Your task to perform on an android device: Open display settings Image 0: 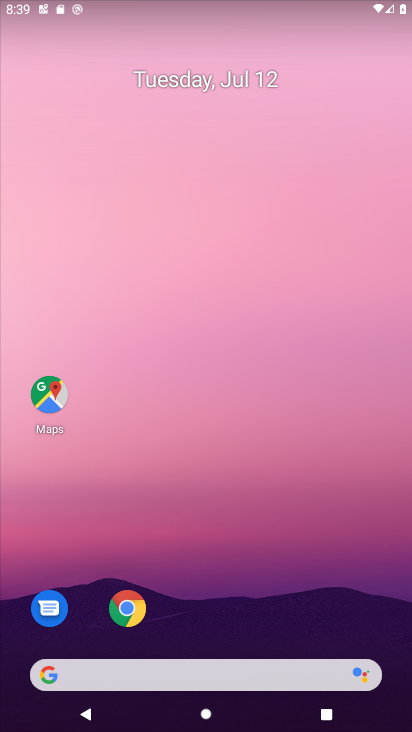
Step 0: drag from (228, 669) to (346, 53)
Your task to perform on an android device: Open display settings Image 1: 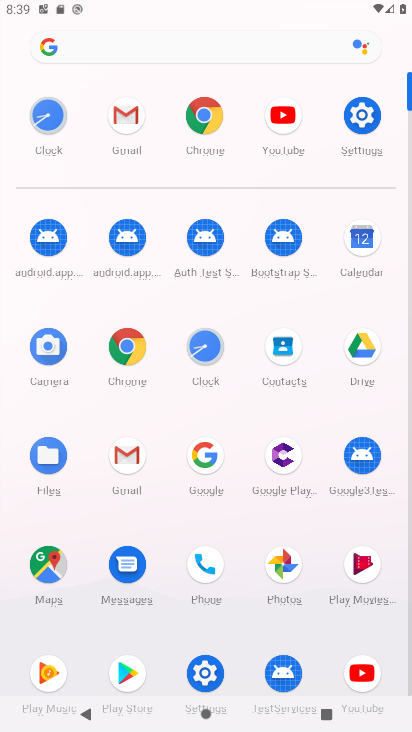
Step 1: click (355, 108)
Your task to perform on an android device: Open display settings Image 2: 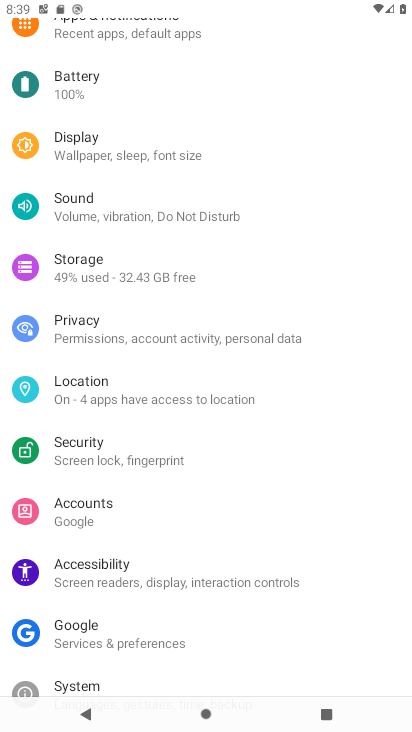
Step 2: click (111, 152)
Your task to perform on an android device: Open display settings Image 3: 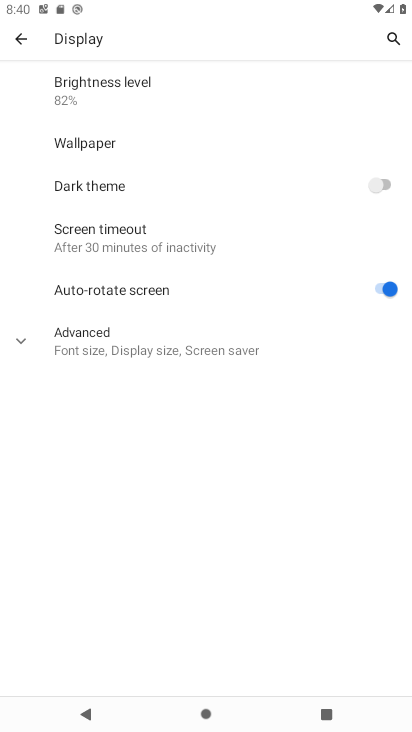
Step 3: task complete